Your task to perform on an android device: Go to Amazon Image 0: 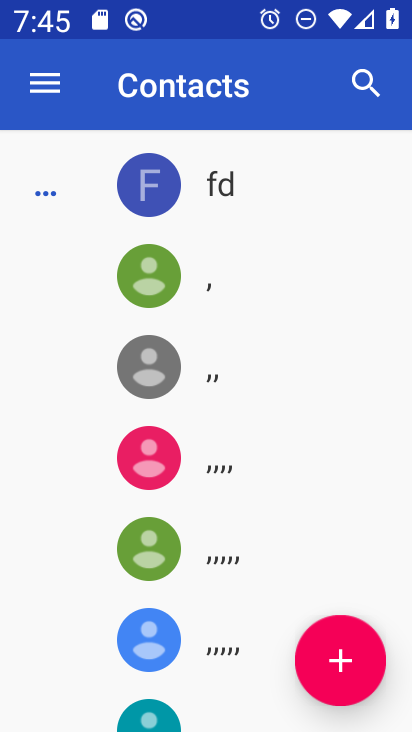
Step 0: press home button
Your task to perform on an android device: Go to Amazon Image 1: 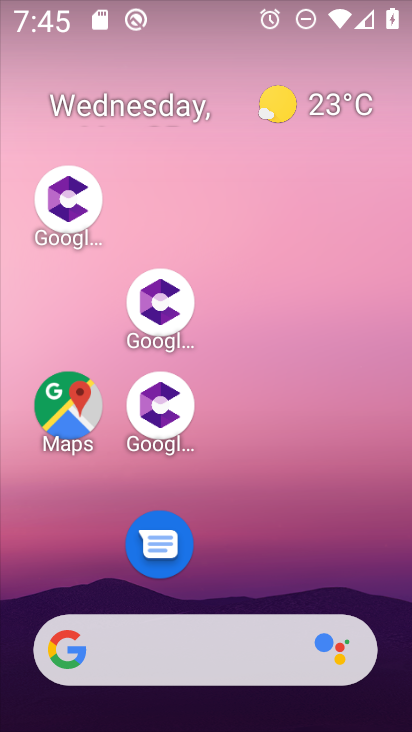
Step 1: drag from (284, 529) to (250, 55)
Your task to perform on an android device: Go to Amazon Image 2: 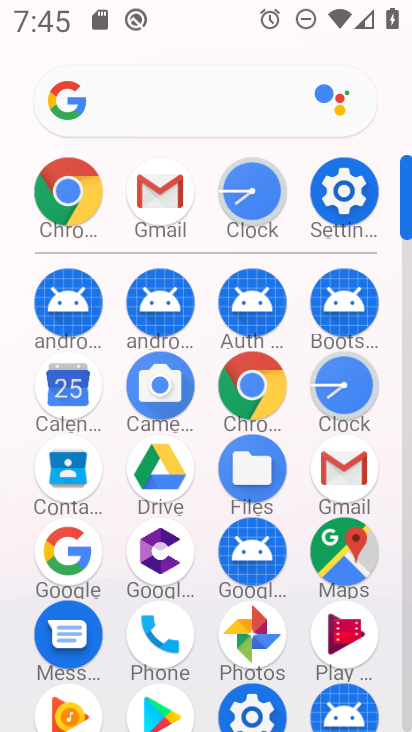
Step 2: click (75, 192)
Your task to perform on an android device: Go to Amazon Image 3: 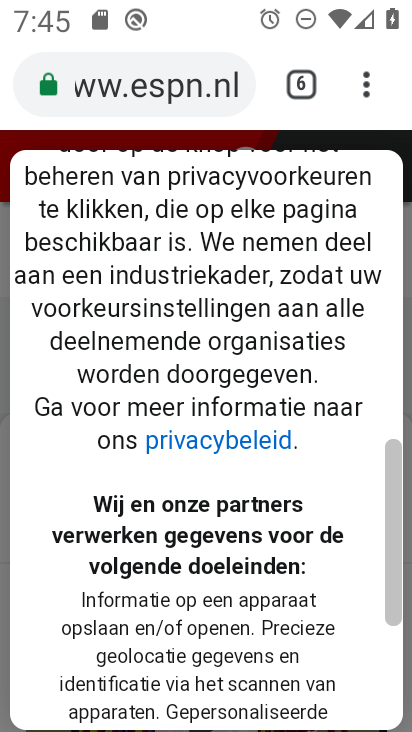
Step 3: click (357, 78)
Your task to perform on an android device: Go to Amazon Image 4: 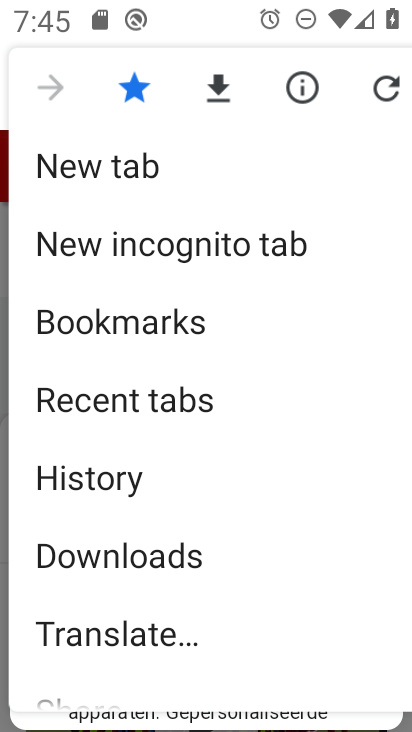
Step 4: click (115, 164)
Your task to perform on an android device: Go to Amazon Image 5: 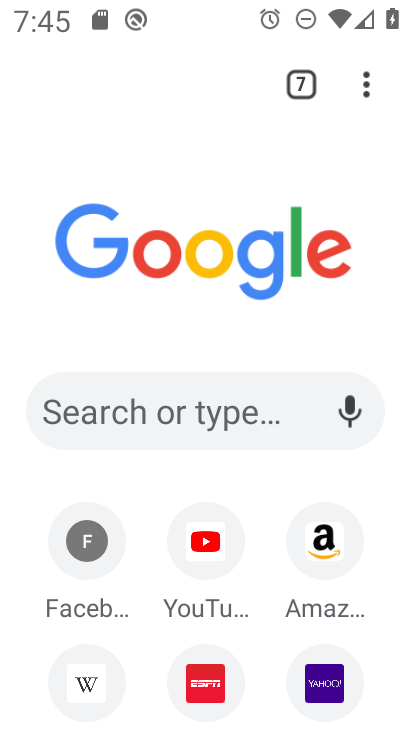
Step 5: click (319, 553)
Your task to perform on an android device: Go to Amazon Image 6: 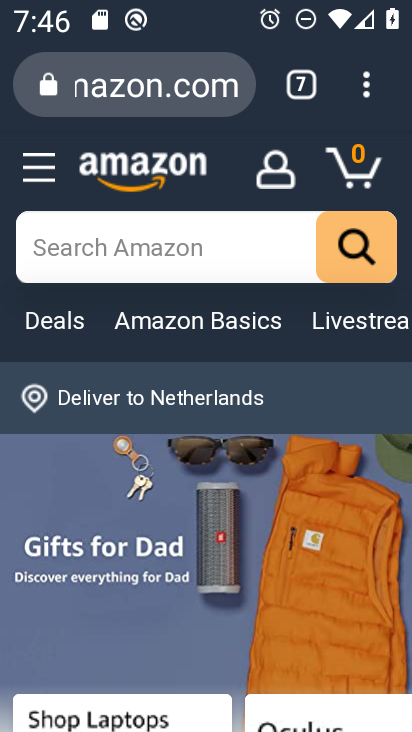
Step 6: task complete